Your task to perform on an android device: change text size in settings app Image 0: 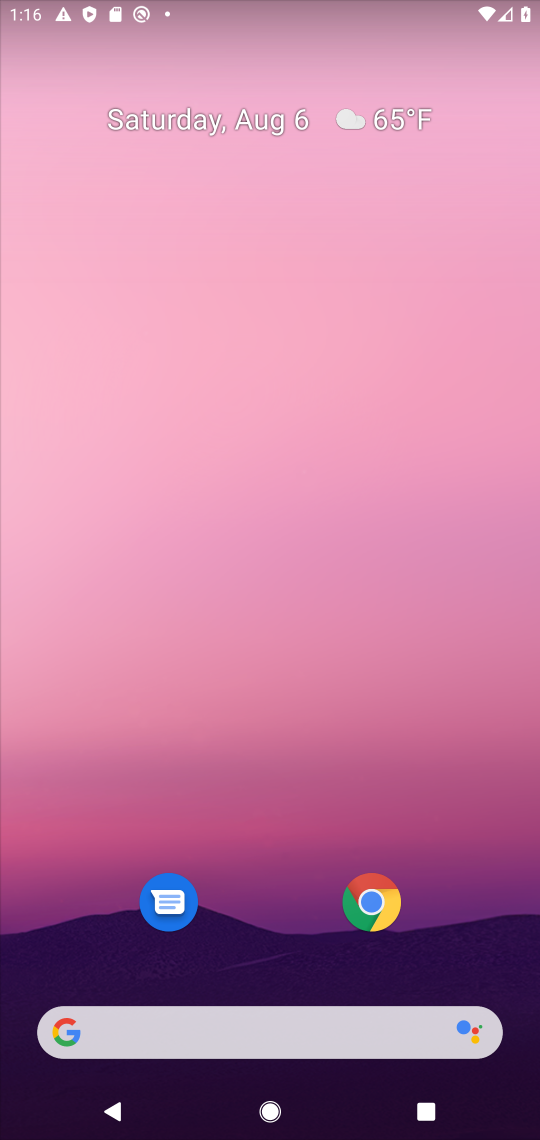
Step 0: click (434, 704)
Your task to perform on an android device: change text size in settings app Image 1: 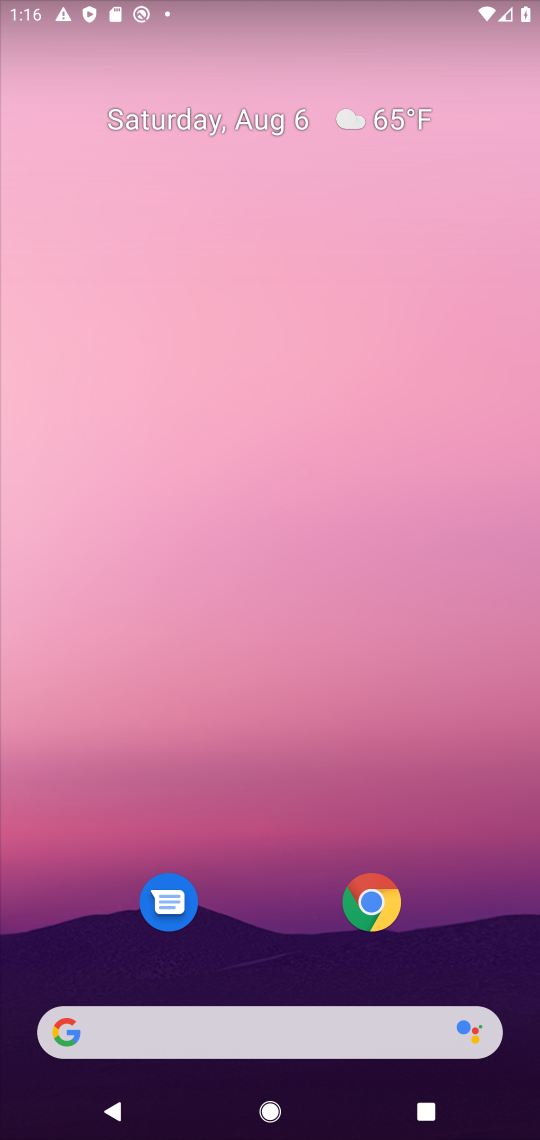
Step 1: drag from (274, 837) to (209, 14)
Your task to perform on an android device: change text size in settings app Image 2: 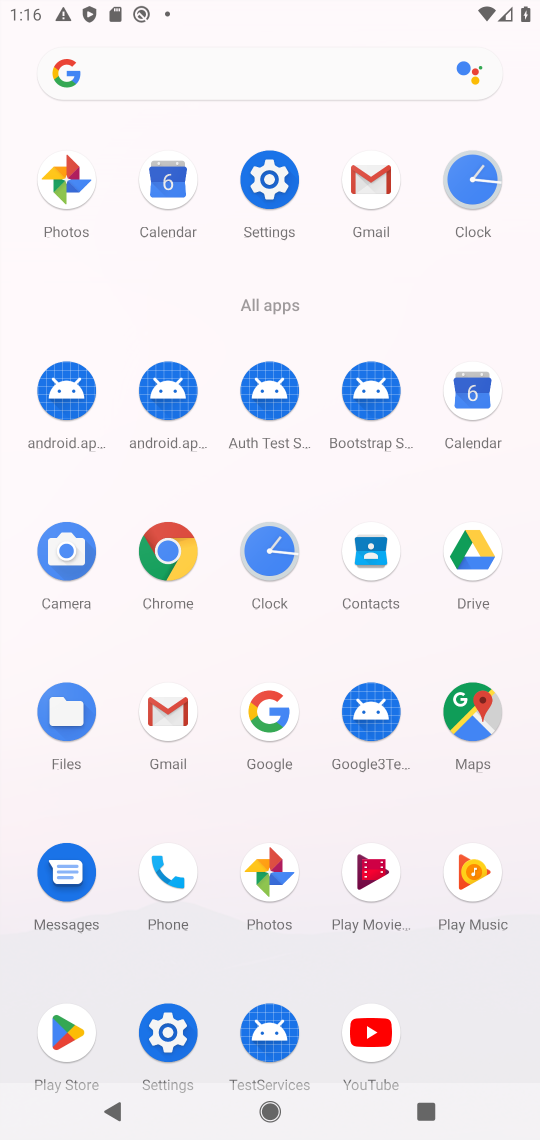
Step 2: click (269, 181)
Your task to perform on an android device: change text size in settings app Image 3: 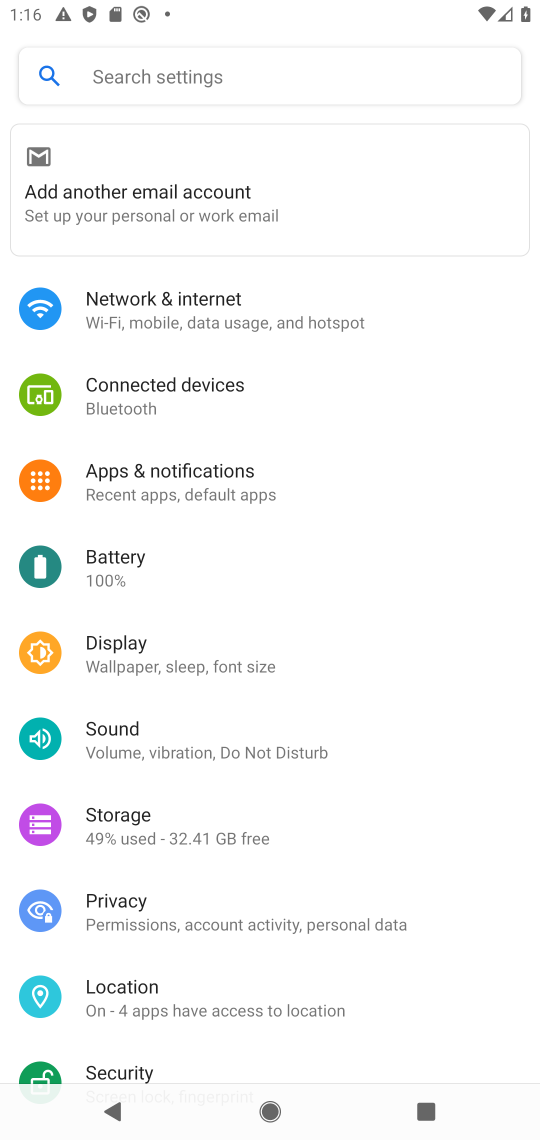
Step 3: click (129, 635)
Your task to perform on an android device: change text size in settings app Image 4: 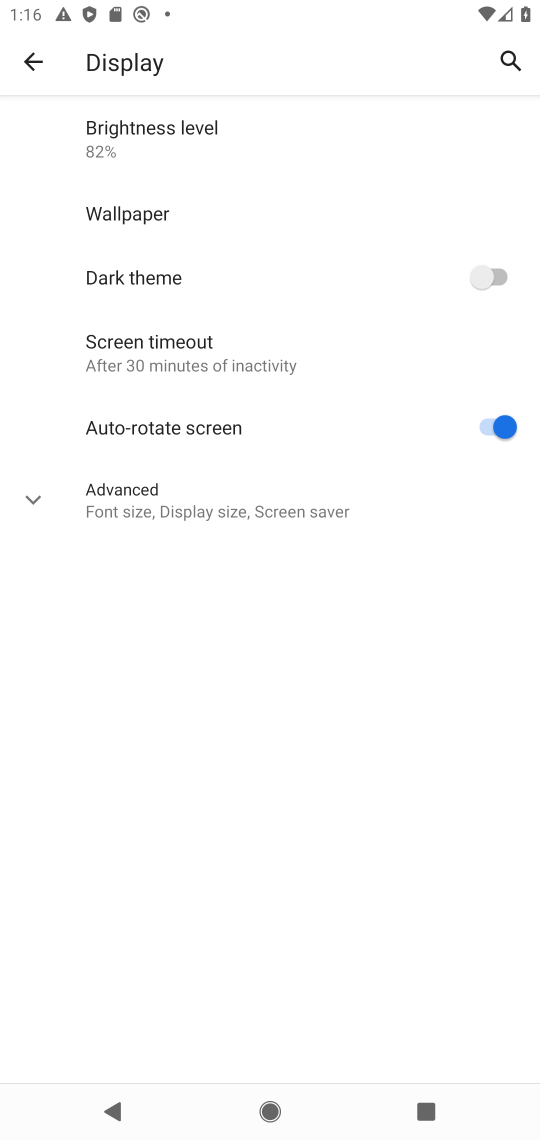
Step 4: click (51, 507)
Your task to perform on an android device: change text size in settings app Image 5: 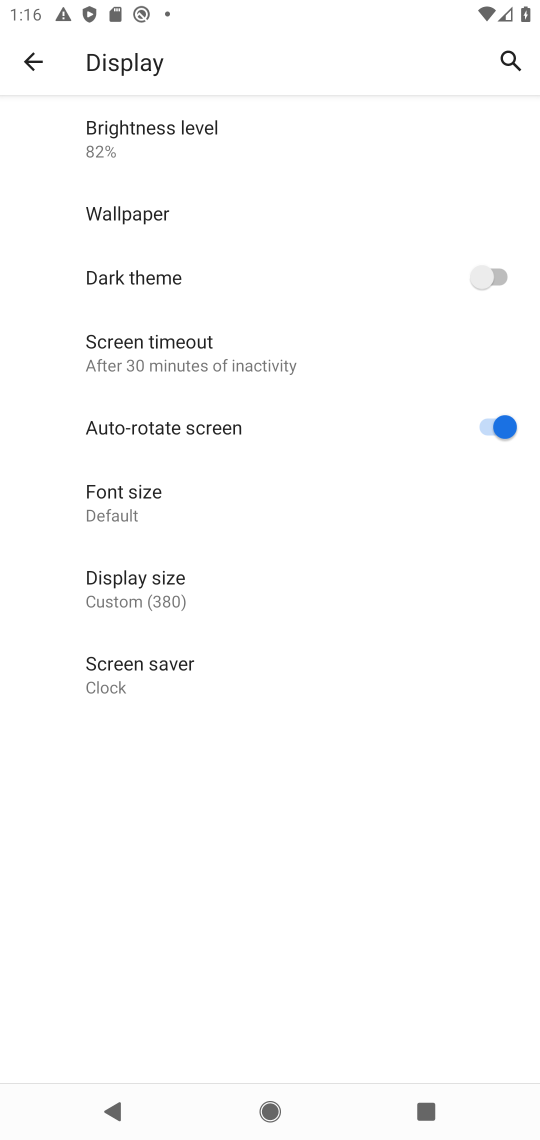
Step 5: click (135, 480)
Your task to perform on an android device: change text size in settings app Image 6: 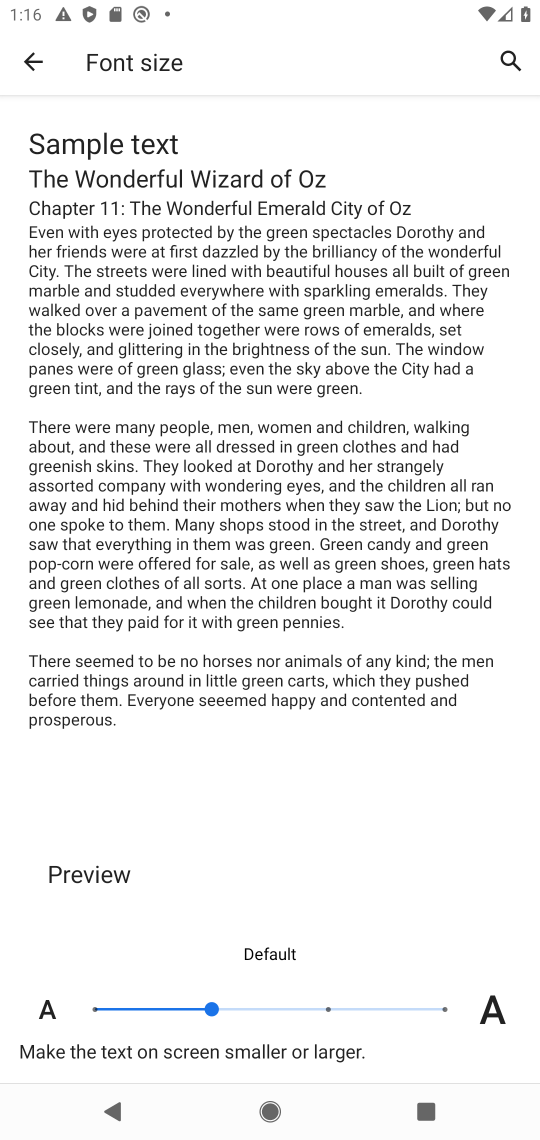
Step 6: click (272, 990)
Your task to perform on an android device: change text size in settings app Image 7: 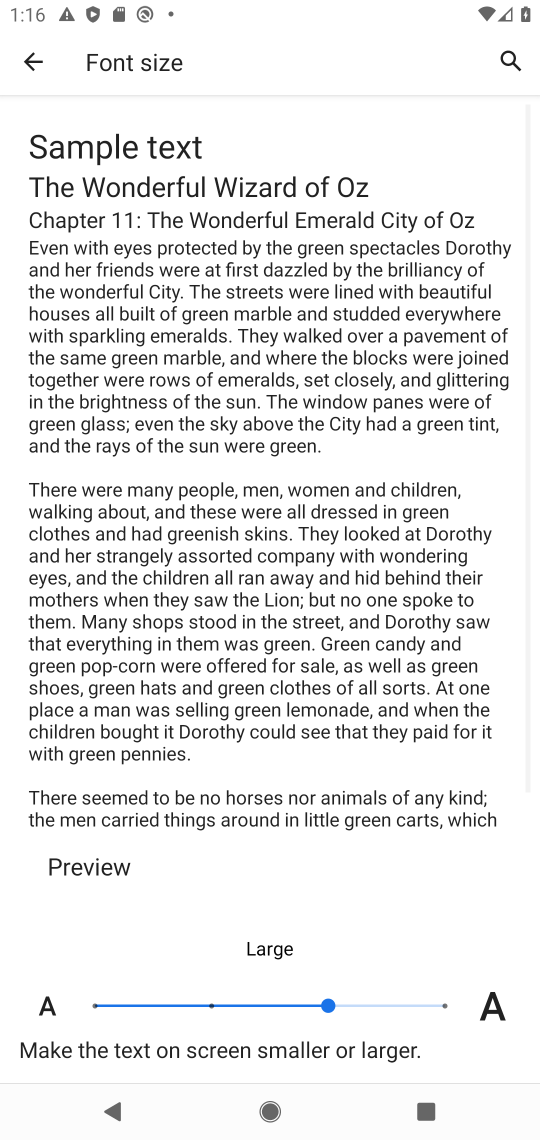
Step 7: task complete